Your task to perform on an android device: Search for sushi restaurants on Maps Image 0: 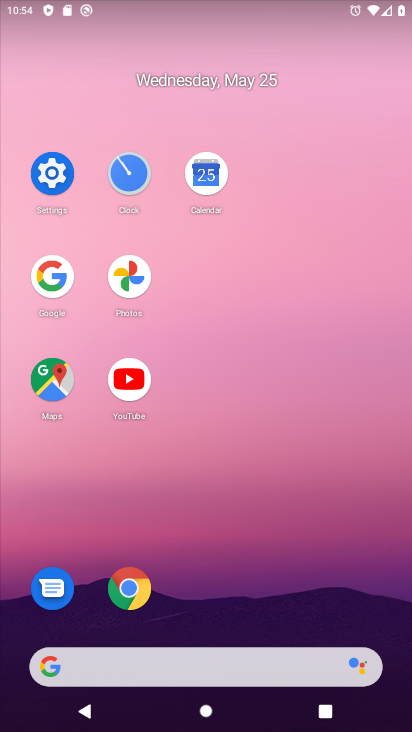
Step 0: click (64, 370)
Your task to perform on an android device: Search for sushi restaurants on Maps Image 1: 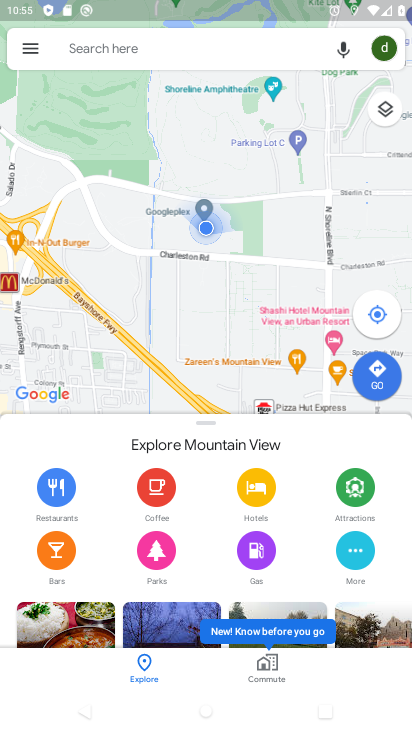
Step 1: click (137, 49)
Your task to perform on an android device: Search for sushi restaurants on Maps Image 2: 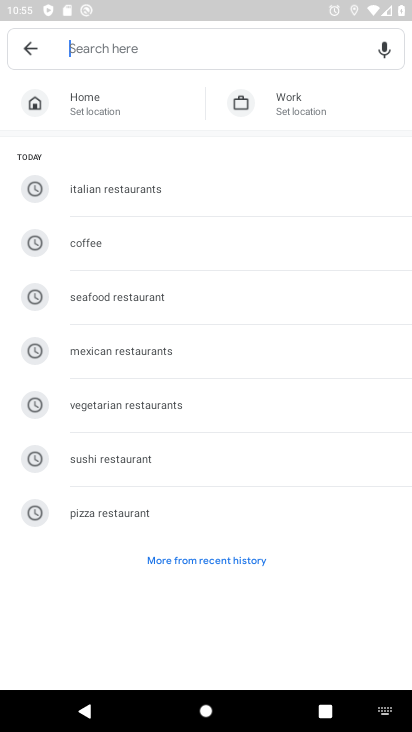
Step 2: click (166, 465)
Your task to perform on an android device: Search for sushi restaurants on Maps Image 3: 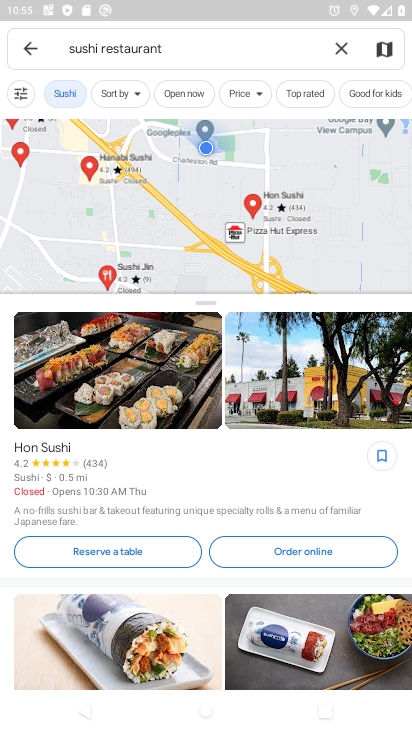
Step 3: task complete